Your task to perform on an android device: Go to Maps Image 0: 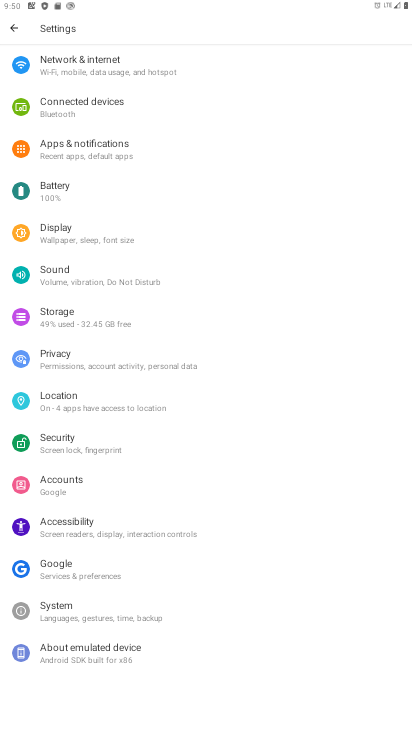
Step 0: press home button
Your task to perform on an android device: Go to Maps Image 1: 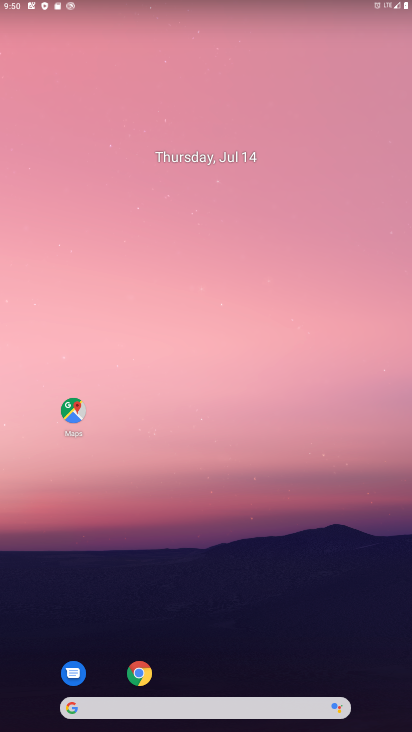
Step 1: click (70, 411)
Your task to perform on an android device: Go to Maps Image 2: 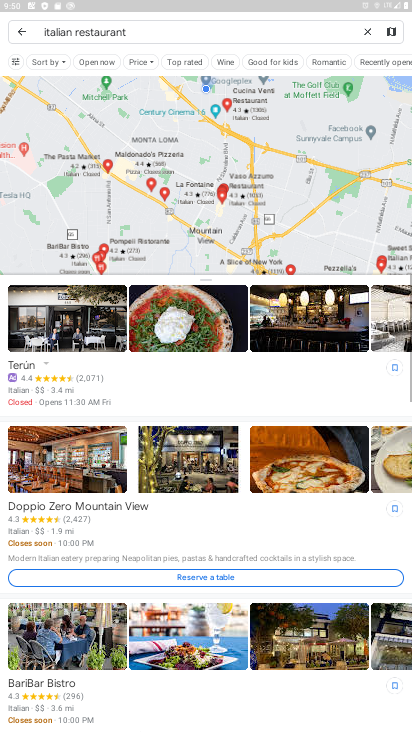
Step 2: click (366, 35)
Your task to perform on an android device: Go to Maps Image 3: 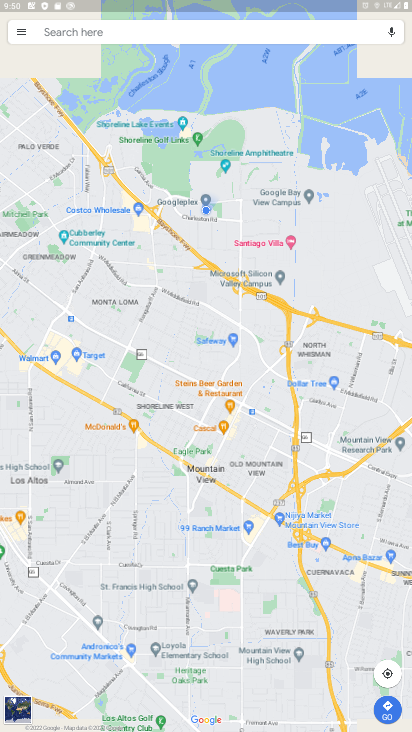
Step 3: task complete